Your task to perform on an android device: Search for sushi restaurants on Maps Image 0: 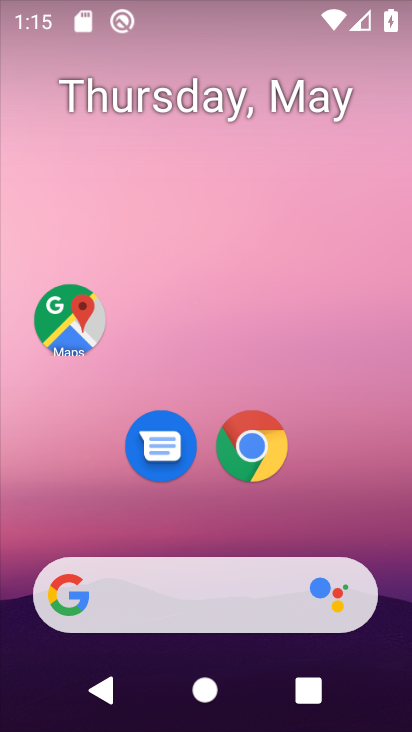
Step 0: click (84, 325)
Your task to perform on an android device: Search for sushi restaurants on Maps Image 1: 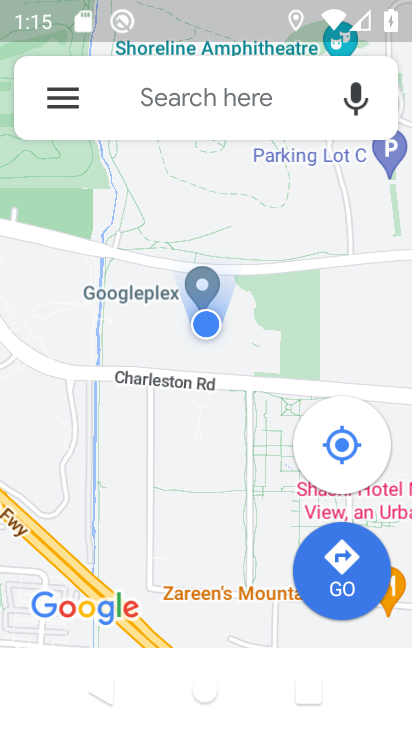
Step 1: click (184, 94)
Your task to perform on an android device: Search for sushi restaurants on Maps Image 2: 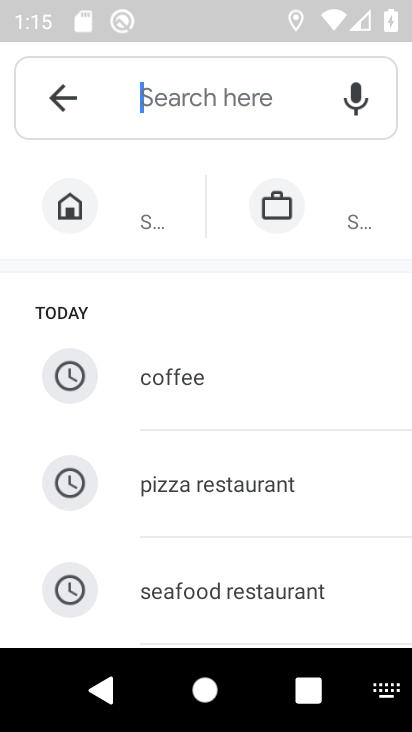
Step 2: type "sushi restaurants"
Your task to perform on an android device: Search for sushi restaurants on Maps Image 3: 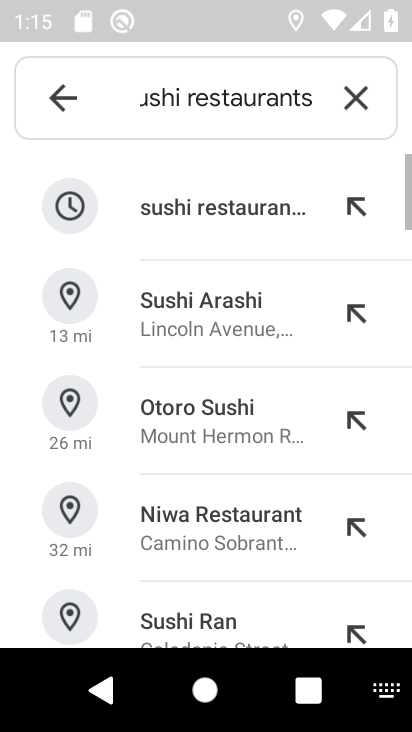
Step 3: click (265, 223)
Your task to perform on an android device: Search for sushi restaurants on Maps Image 4: 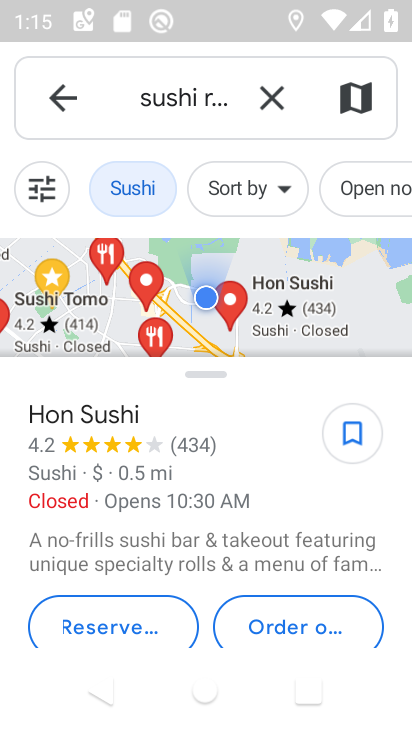
Step 4: task complete